Your task to perform on an android device: remove spam from my inbox in the gmail app Image 0: 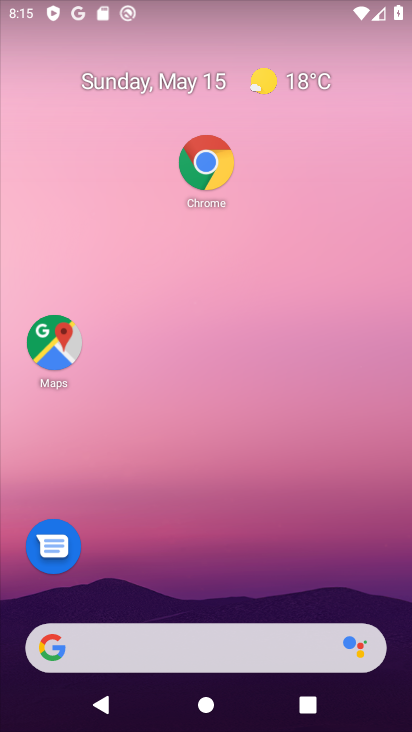
Step 0: drag from (267, 477) to (315, 244)
Your task to perform on an android device: remove spam from my inbox in the gmail app Image 1: 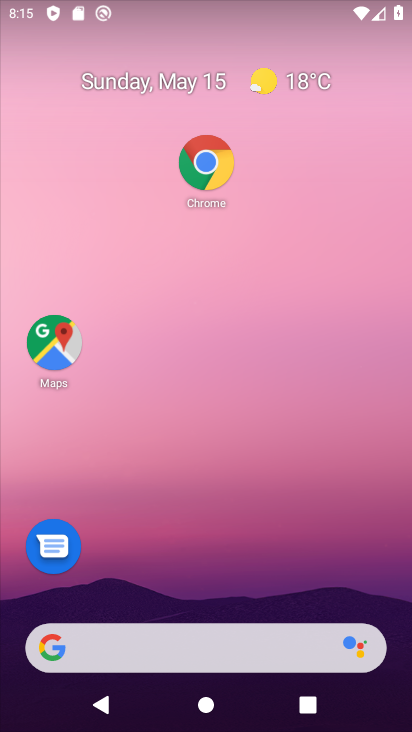
Step 1: drag from (198, 550) to (316, 270)
Your task to perform on an android device: remove spam from my inbox in the gmail app Image 2: 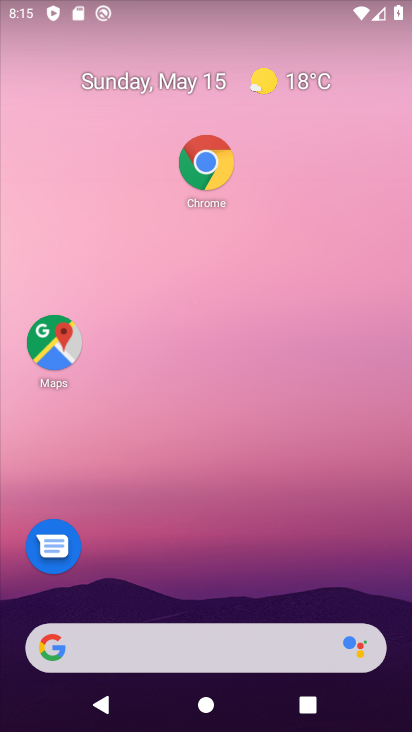
Step 2: drag from (181, 619) to (321, 164)
Your task to perform on an android device: remove spam from my inbox in the gmail app Image 3: 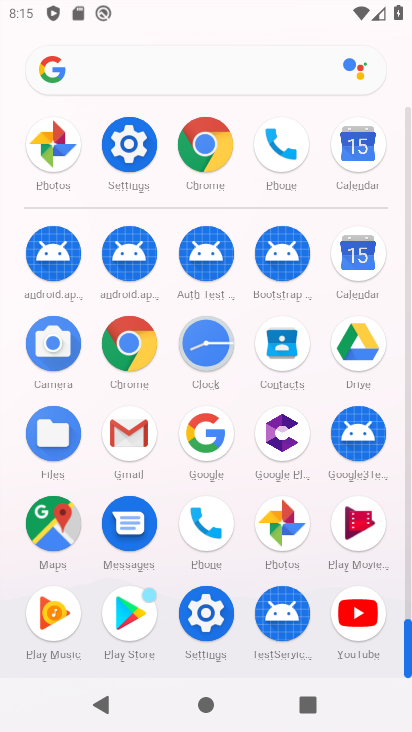
Step 3: click (136, 413)
Your task to perform on an android device: remove spam from my inbox in the gmail app Image 4: 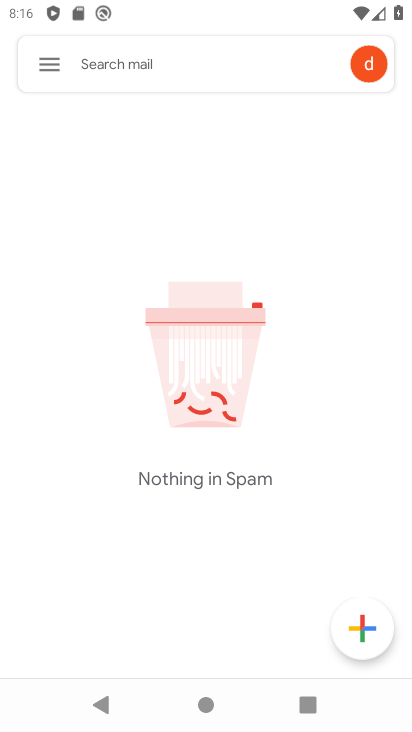
Step 4: task complete